Your task to perform on an android device: Turn off the flashlight Image 0: 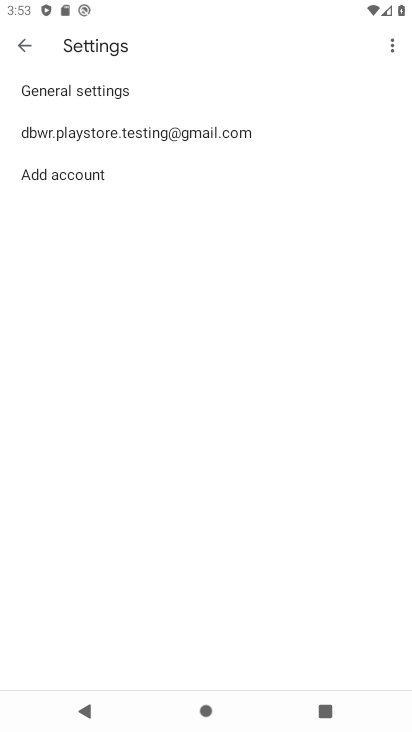
Step 0: press home button
Your task to perform on an android device: Turn off the flashlight Image 1: 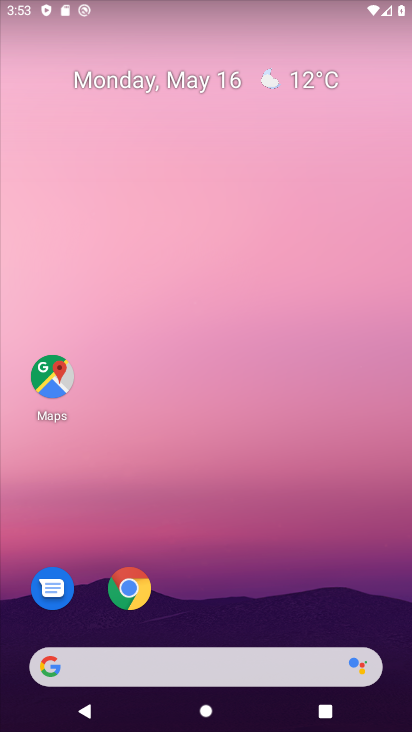
Step 1: click (233, 169)
Your task to perform on an android device: Turn off the flashlight Image 2: 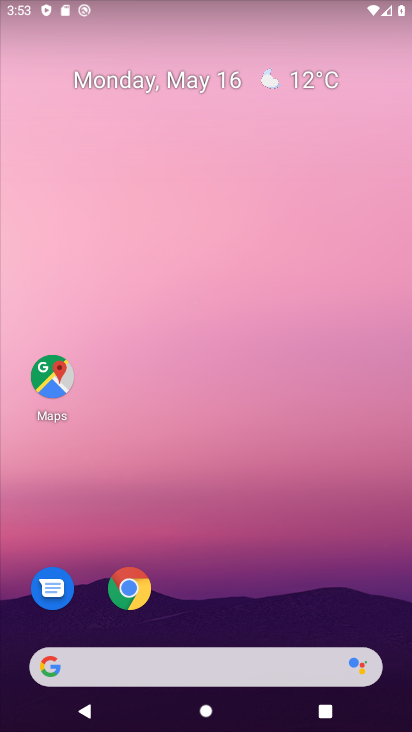
Step 2: drag from (232, 638) to (198, 52)
Your task to perform on an android device: Turn off the flashlight Image 3: 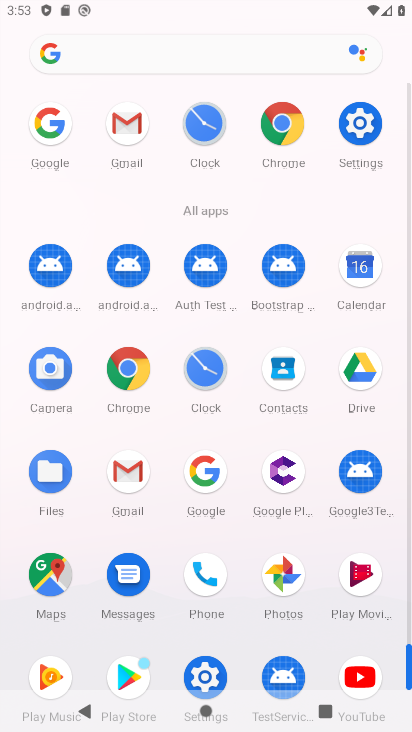
Step 3: click (358, 120)
Your task to perform on an android device: Turn off the flashlight Image 4: 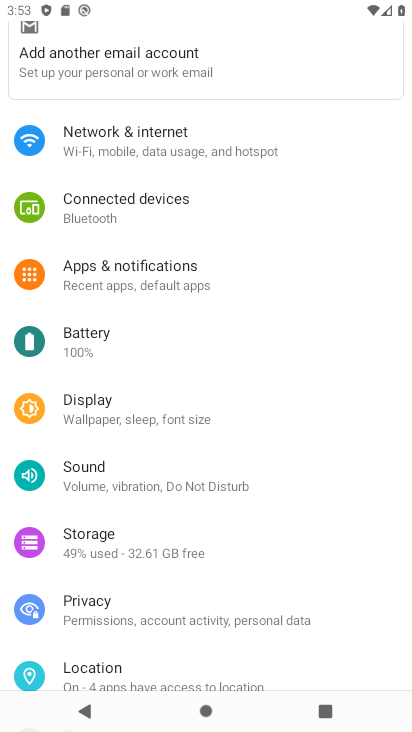
Step 4: click (109, 411)
Your task to perform on an android device: Turn off the flashlight Image 5: 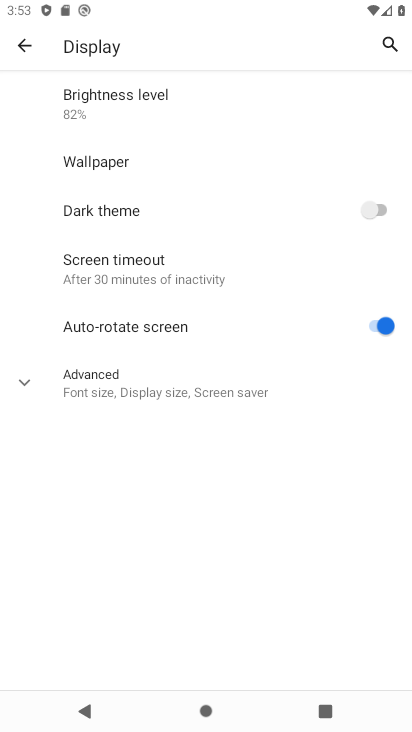
Step 5: click (148, 371)
Your task to perform on an android device: Turn off the flashlight Image 6: 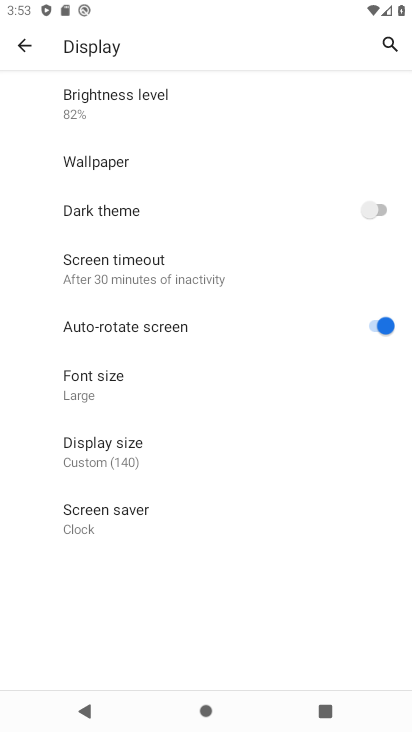
Step 6: task complete